Your task to perform on an android device: check google app version Image 0: 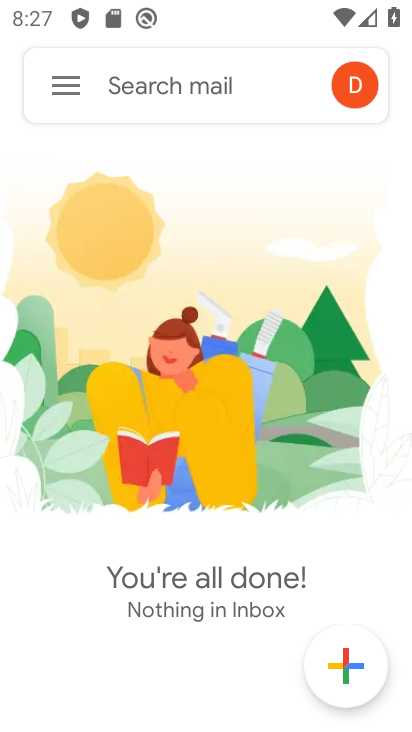
Step 0: press home button
Your task to perform on an android device: check google app version Image 1: 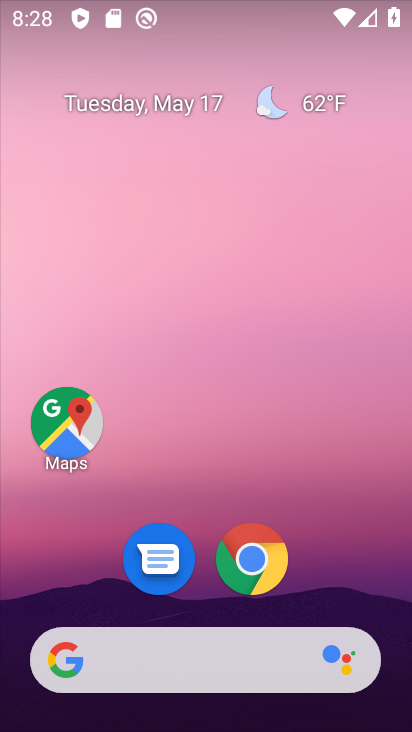
Step 1: drag from (248, 637) to (81, 16)
Your task to perform on an android device: check google app version Image 2: 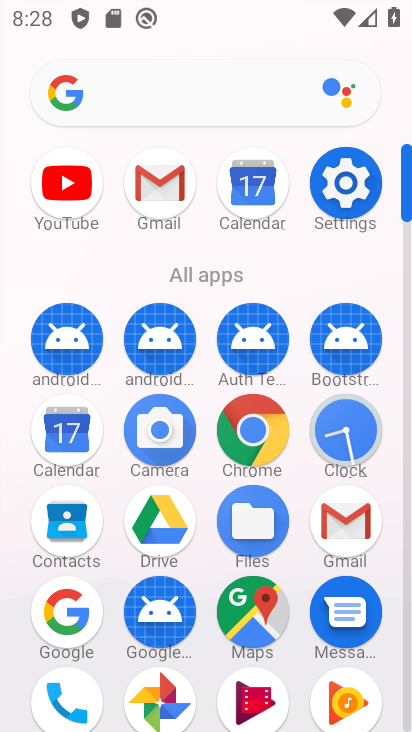
Step 2: click (75, 603)
Your task to perform on an android device: check google app version Image 3: 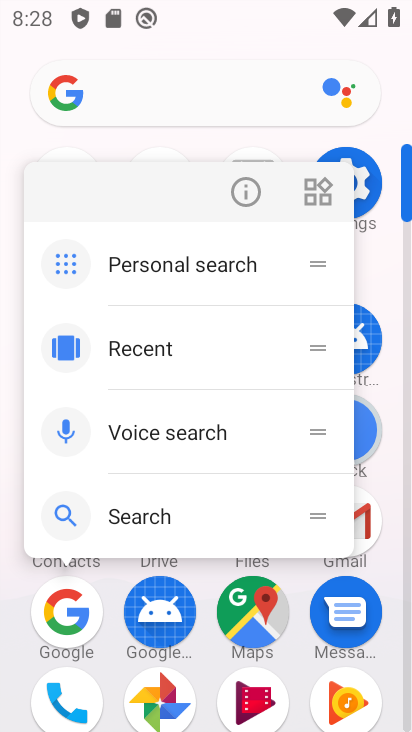
Step 3: click (254, 198)
Your task to perform on an android device: check google app version Image 4: 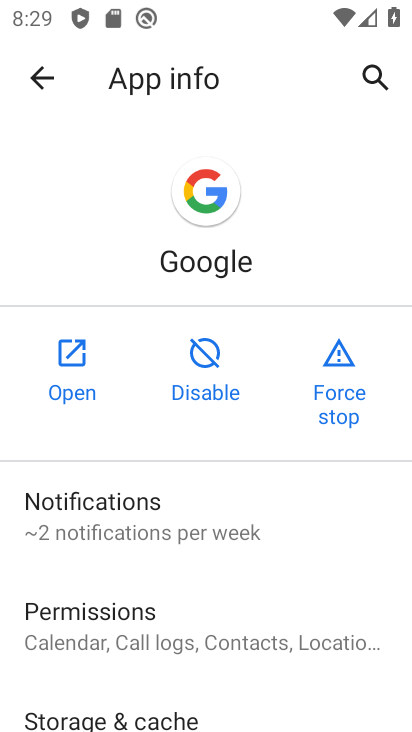
Step 4: drag from (147, 615) to (97, 33)
Your task to perform on an android device: check google app version Image 5: 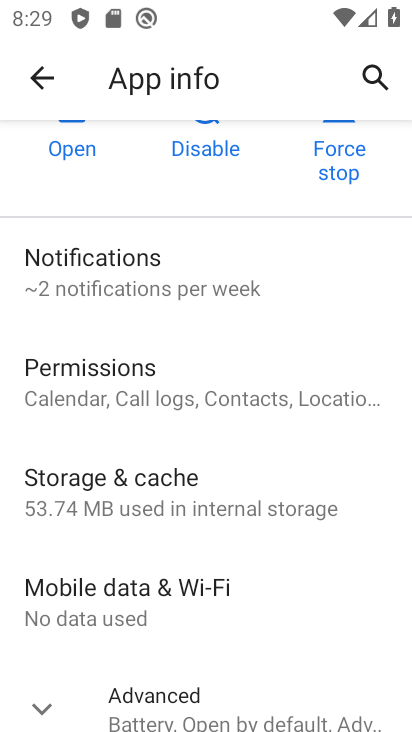
Step 5: click (192, 685)
Your task to perform on an android device: check google app version Image 6: 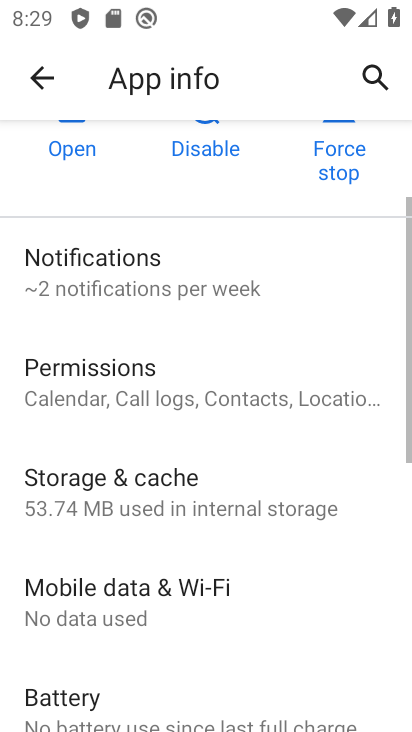
Step 6: task complete